Your task to perform on an android device: What's the weather today? Image 0: 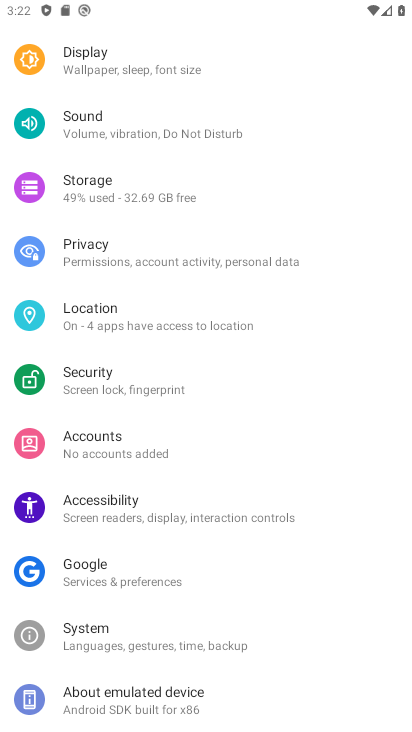
Step 0: press home button
Your task to perform on an android device: What's the weather today? Image 1: 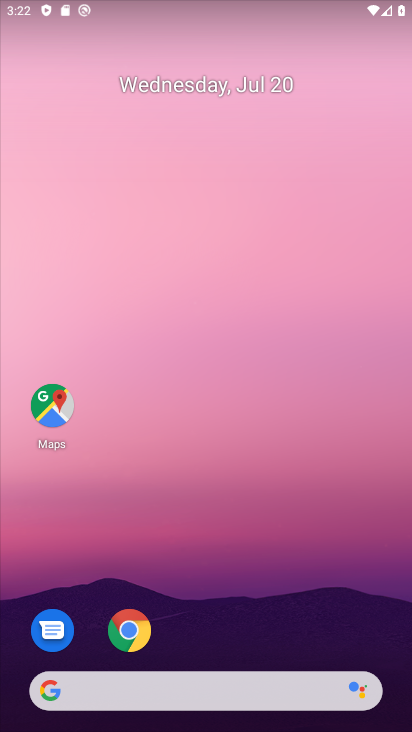
Step 1: click (48, 684)
Your task to perform on an android device: What's the weather today? Image 2: 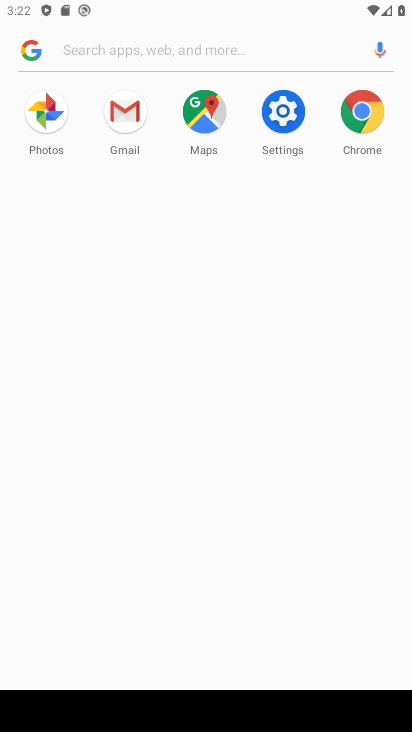
Step 2: type "weather today?"
Your task to perform on an android device: What's the weather today? Image 3: 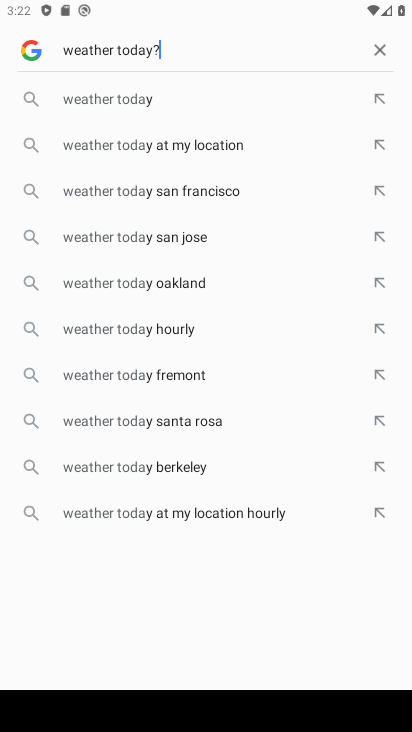
Step 3: press enter
Your task to perform on an android device: What's the weather today? Image 4: 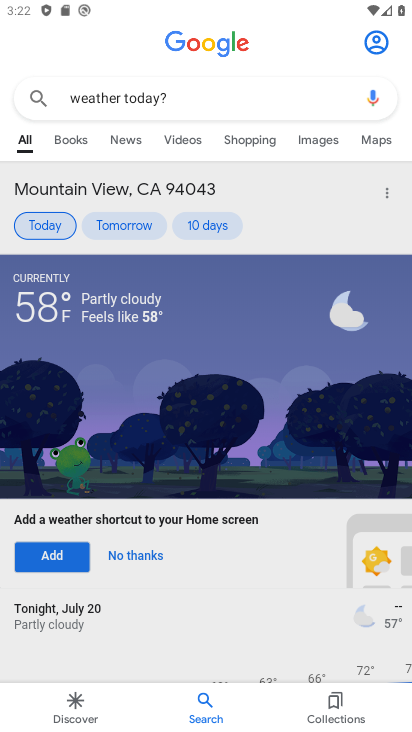
Step 4: task complete